Your task to perform on an android device: What is the news today? Image 0: 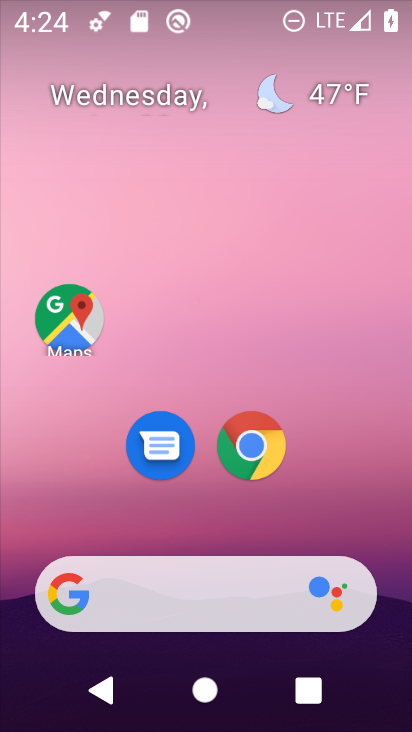
Step 0: drag from (321, 512) to (377, 141)
Your task to perform on an android device: What is the news today? Image 1: 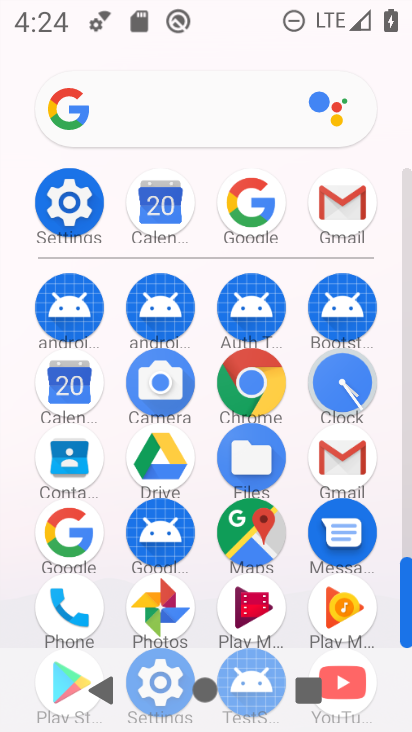
Step 1: click (252, 201)
Your task to perform on an android device: What is the news today? Image 2: 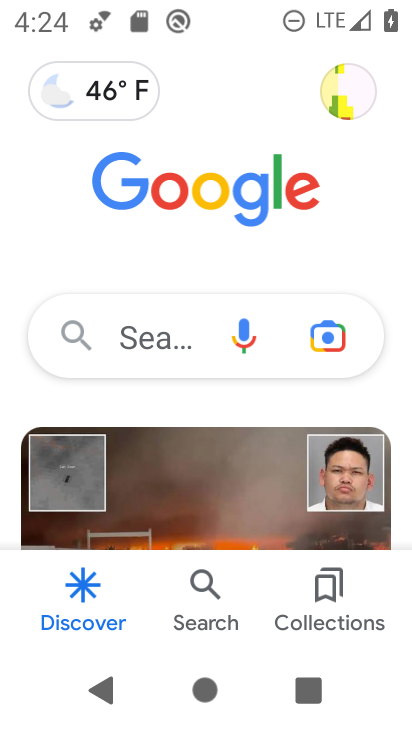
Step 2: click (181, 339)
Your task to perform on an android device: What is the news today? Image 3: 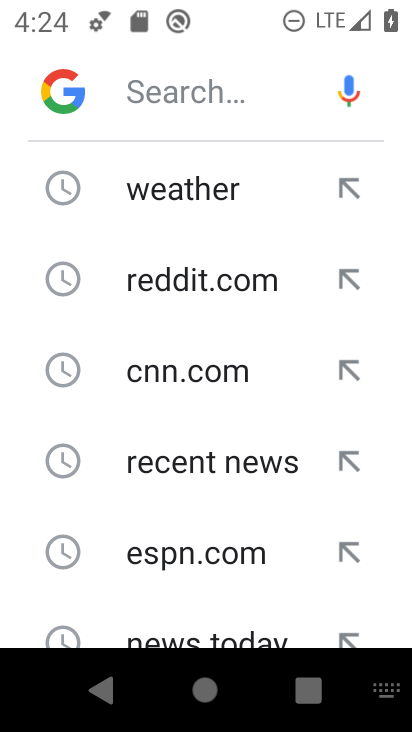
Step 3: click (347, 640)
Your task to perform on an android device: What is the news today? Image 4: 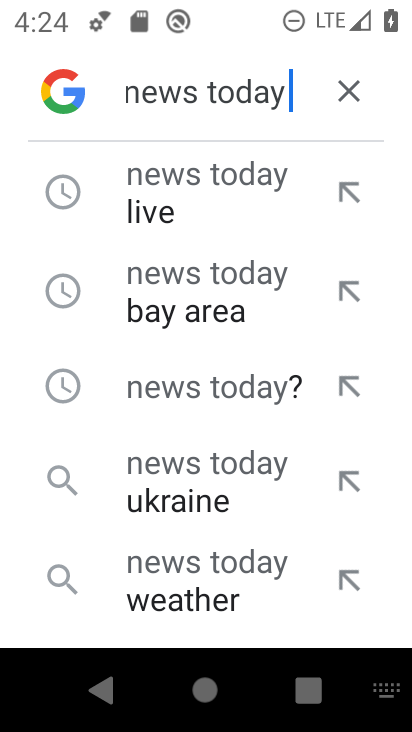
Step 4: click (242, 390)
Your task to perform on an android device: What is the news today? Image 5: 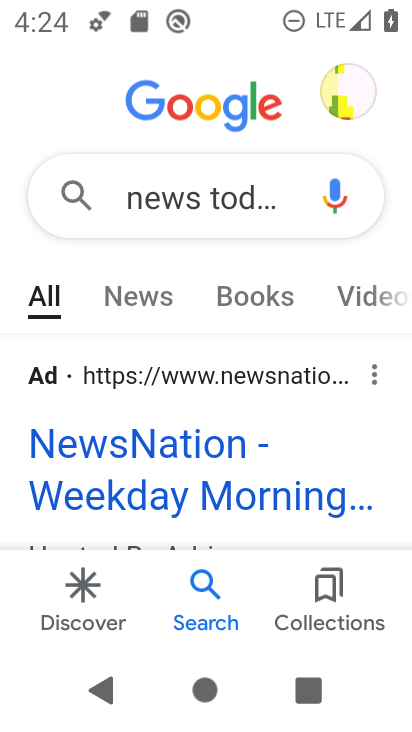
Step 5: task complete